Your task to perform on an android device: Search for pizza restaurants on Maps Image 0: 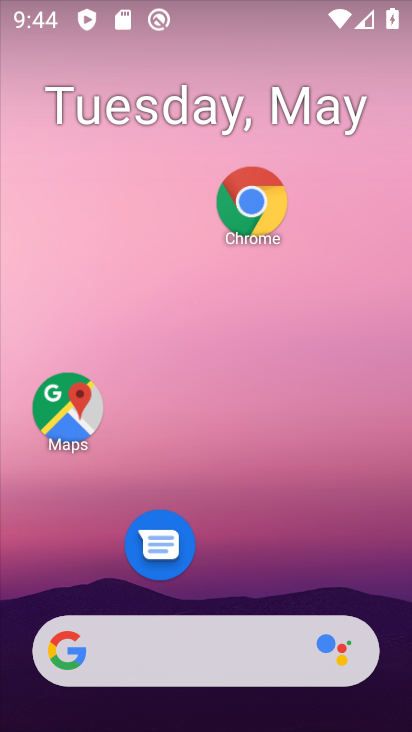
Step 0: click (84, 426)
Your task to perform on an android device: Search for pizza restaurants on Maps Image 1: 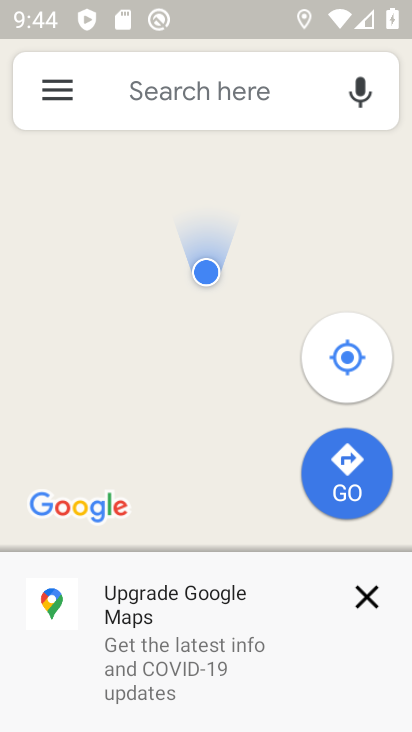
Step 1: click (119, 95)
Your task to perform on an android device: Search for pizza restaurants on Maps Image 2: 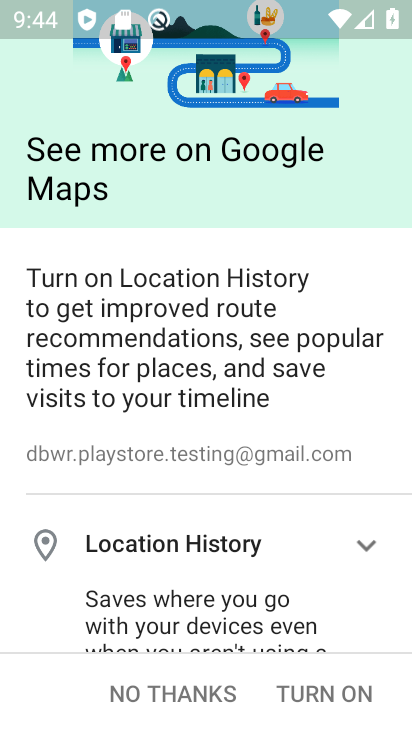
Step 2: click (222, 702)
Your task to perform on an android device: Search for pizza restaurants on Maps Image 3: 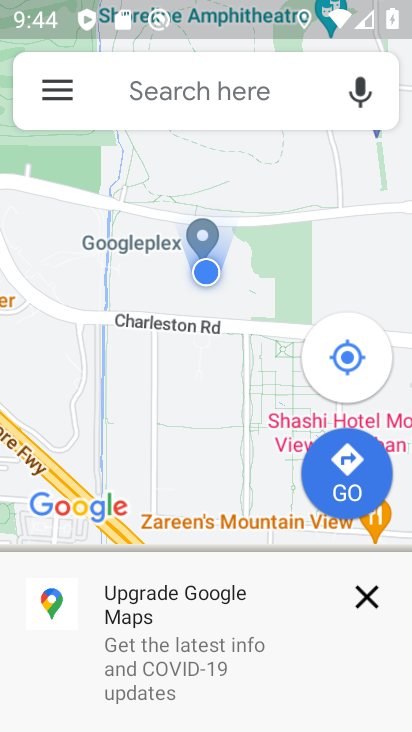
Step 3: click (166, 85)
Your task to perform on an android device: Search for pizza restaurants on Maps Image 4: 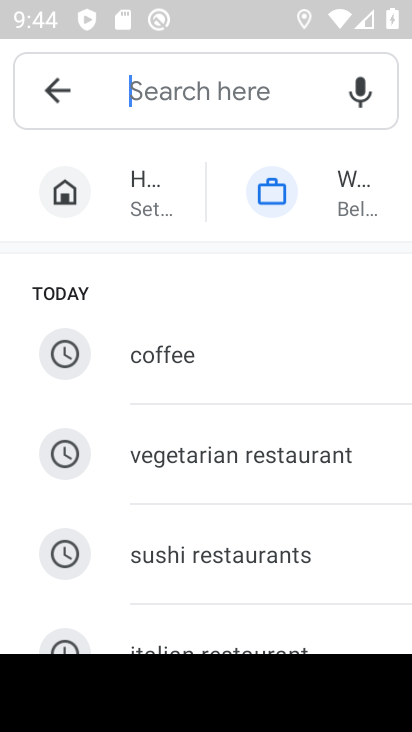
Step 4: type "pizza restaurants"
Your task to perform on an android device: Search for pizza restaurants on Maps Image 5: 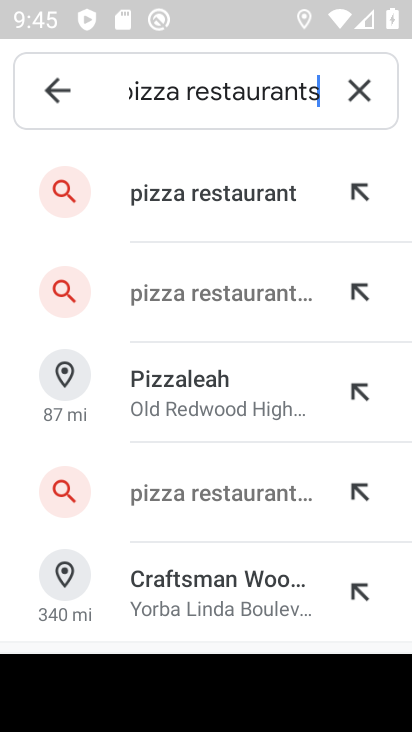
Step 5: click (256, 198)
Your task to perform on an android device: Search for pizza restaurants on Maps Image 6: 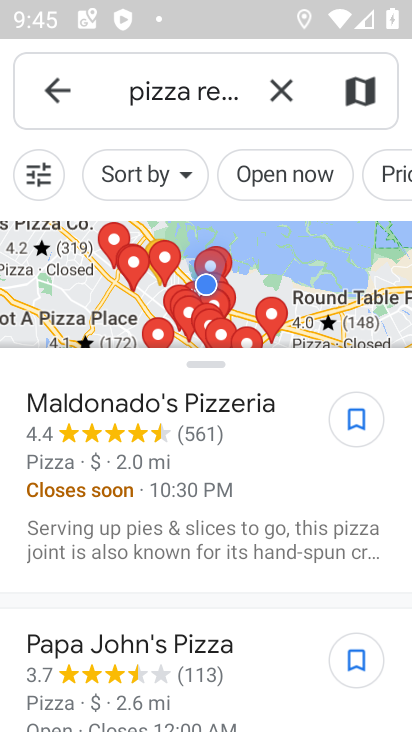
Step 6: task complete